Your task to perform on an android device: Search for a new phone on Amazon. Image 0: 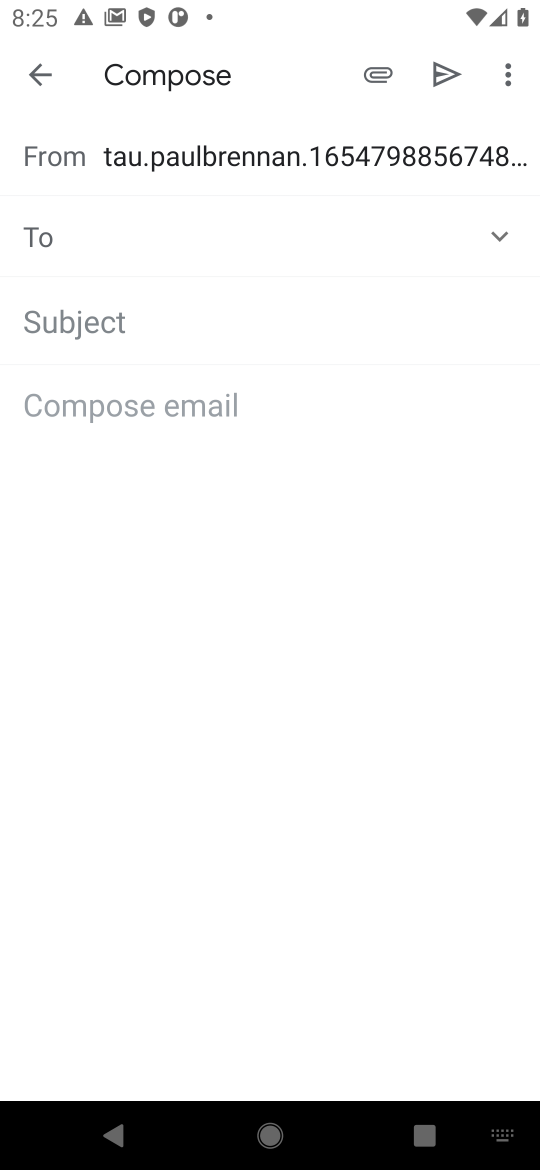
Step 0: press home button
Your task to perform on an android device: Search for a new phone on Amazon. Image 1: 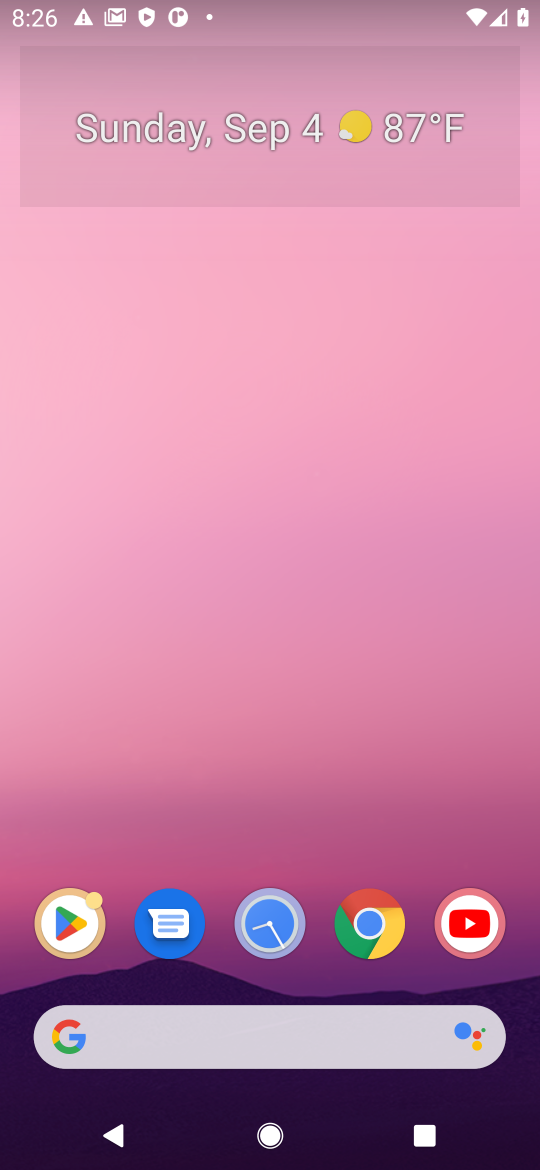
Step 1: click (362, 1037)
Your task to perform on an android device: Search for a new phone on Amazon. Image 2: 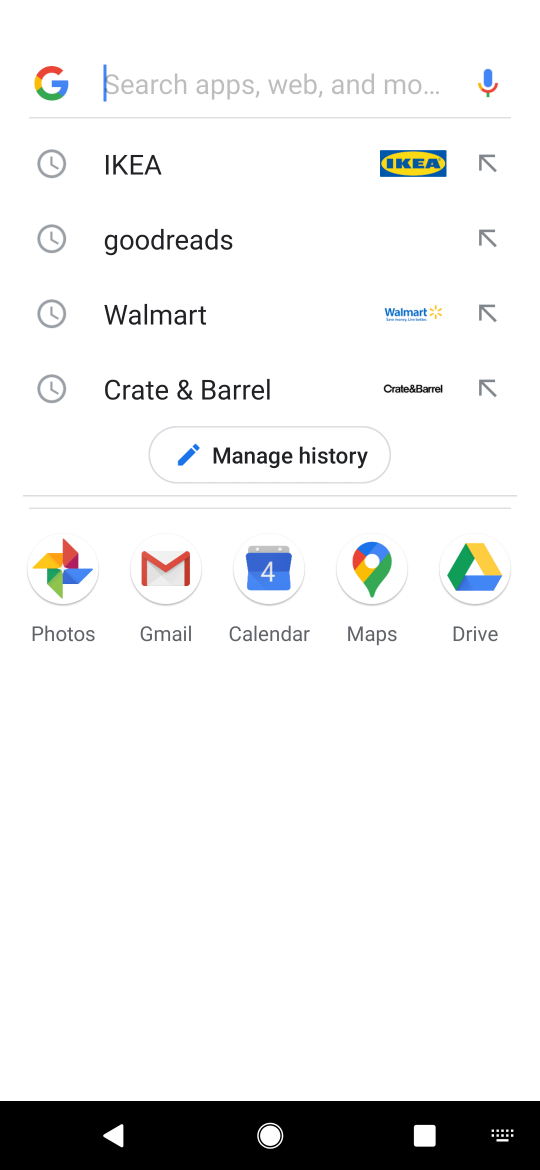
Step 2: press enter
Your task to perform on an android device: Search for a new phone on Amazon. Image 3: 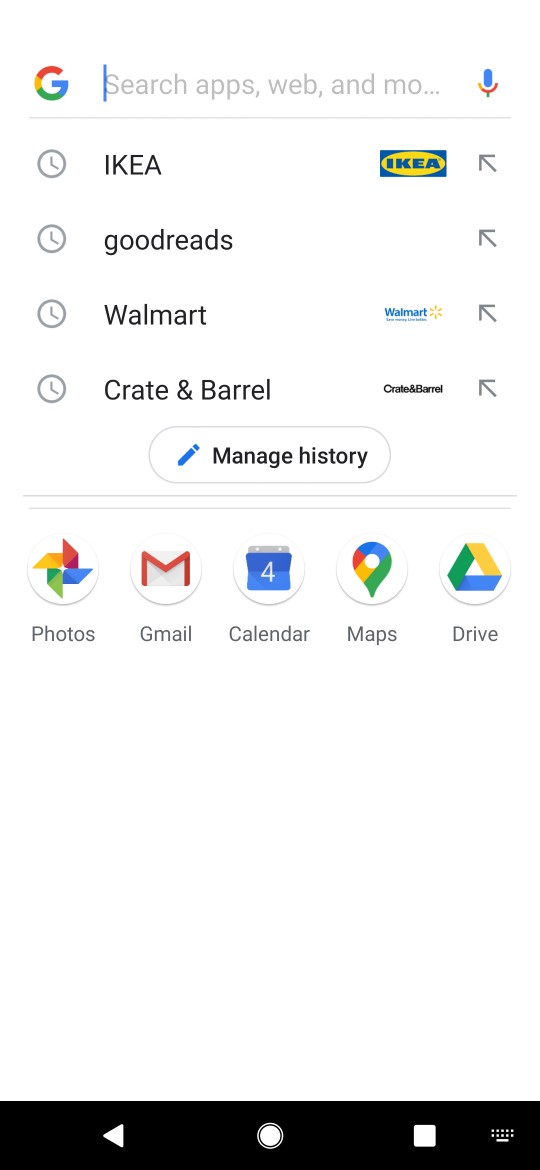
Step 3: type "amazon"
Your task to perform on an android device: Search for a new phone on Amazon. Image 4: 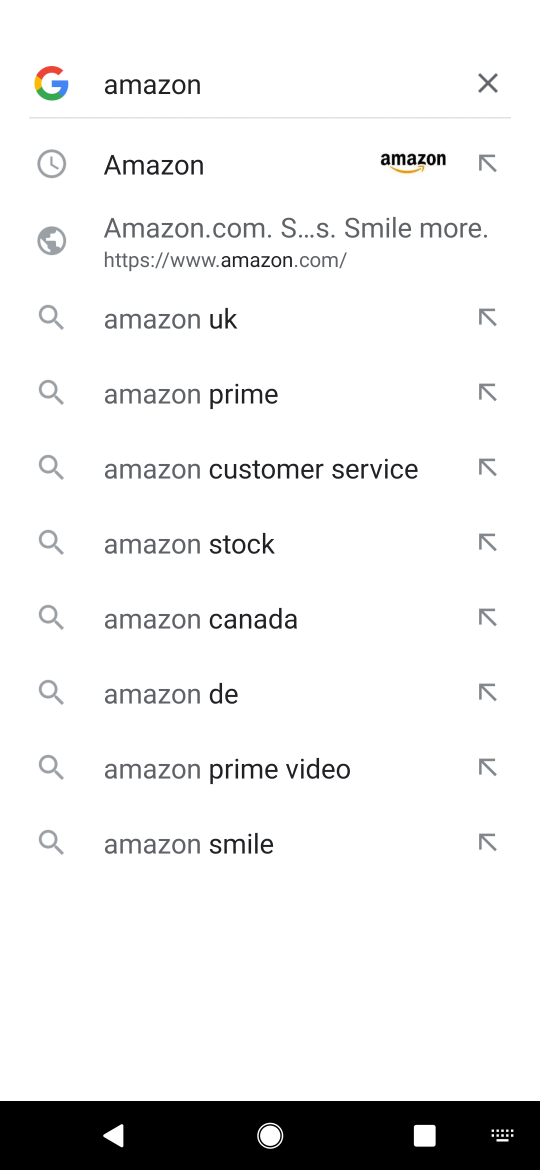
Step 4: click (248, 170)
Your task to perform on an android device: Search for a new phone on Amazon. Image 5: 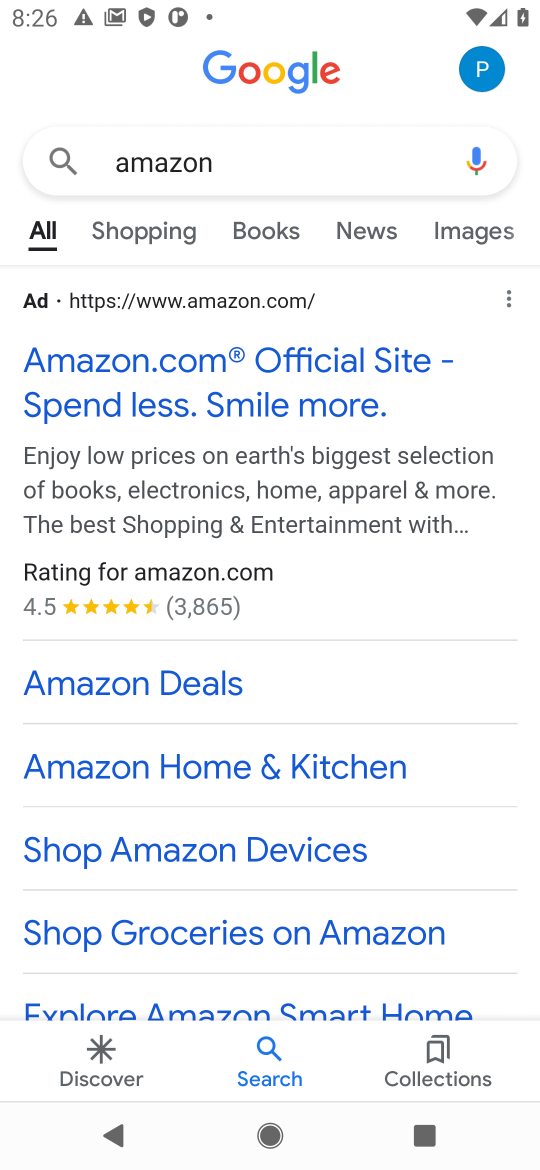
Step 5: click (315, 371)
Your task to perform on an android device: Search for a new phone on Amazon. Image 6: 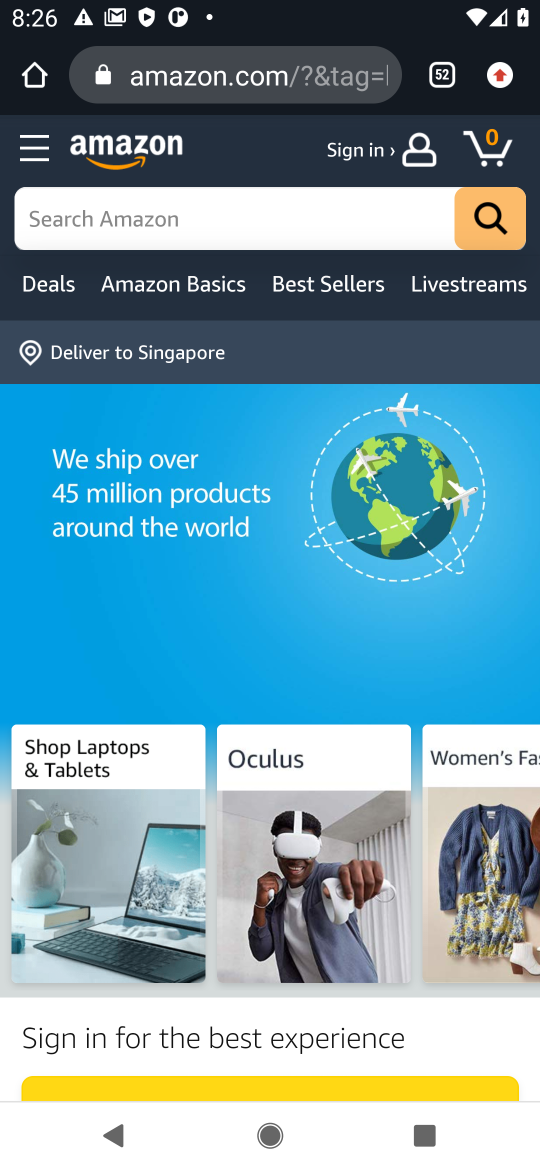
Step 6: click (241, 208)
Your task to perform on an android device: Search for a new phone on Amazon. Image 7: 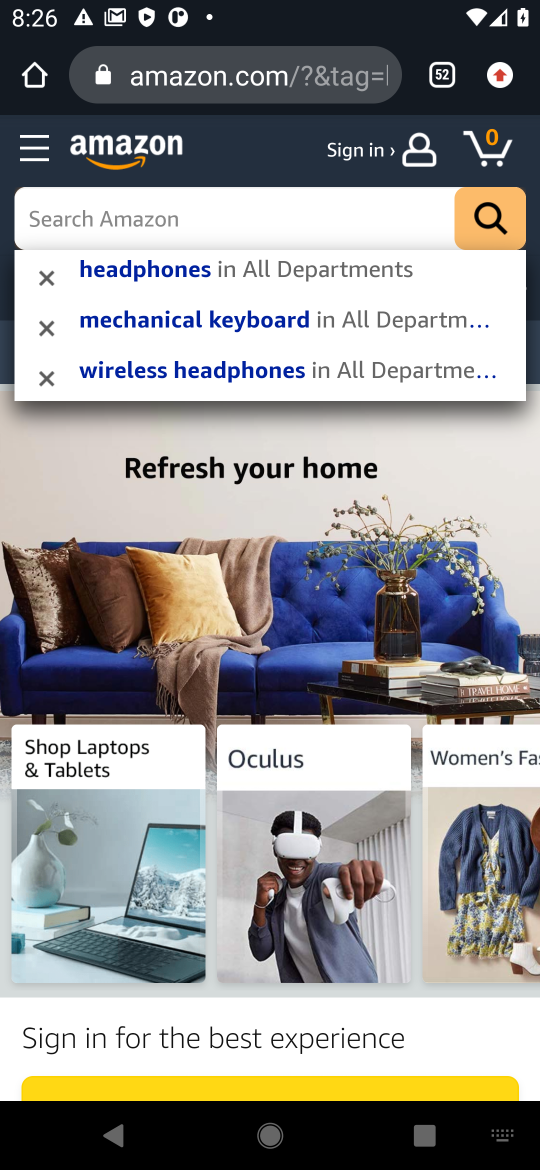
Step 7: type "new phone"
Your task to perform on an android device: Search for a new phone on Amazon. Image 8: 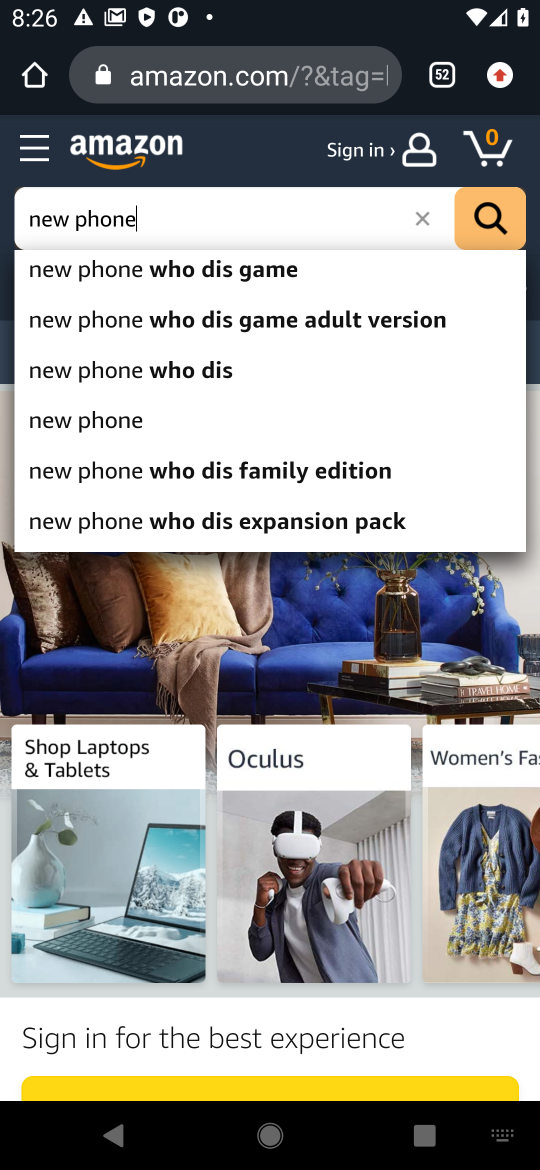
Step 8: click (106, 426)
Your task to perform on an android device: Search for a new phone on Amazon. Image 9: 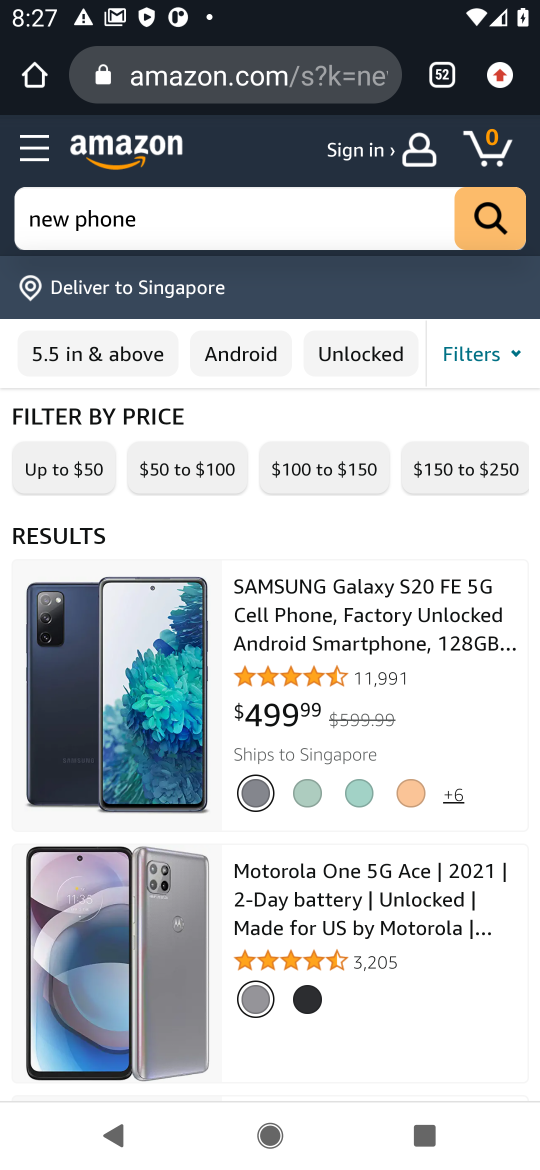
Step 9: task complete